Your task to perform on an android device: Open settings on Google Maps Image 0: 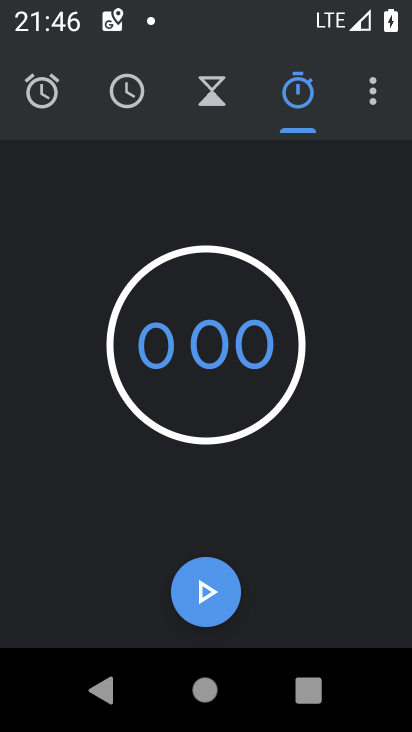
Step 0: press home button
Your task to perform on an android device: Open settings on Google Maps Image 1: 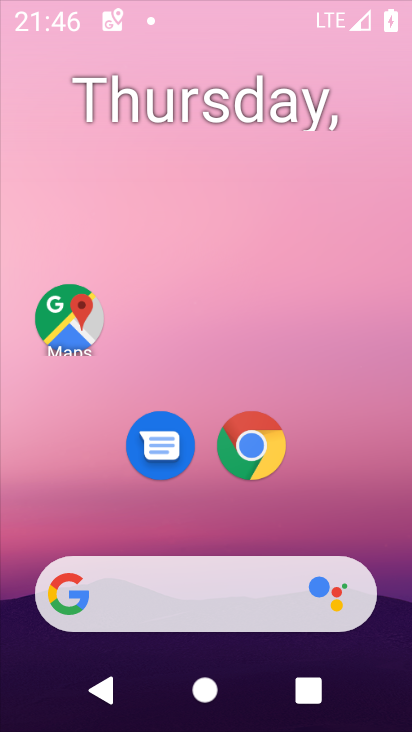
Step 1: drag from (191, 570) to (191, 67)
Your task to perform on an android device: Open settings on Google Maps Image 2: 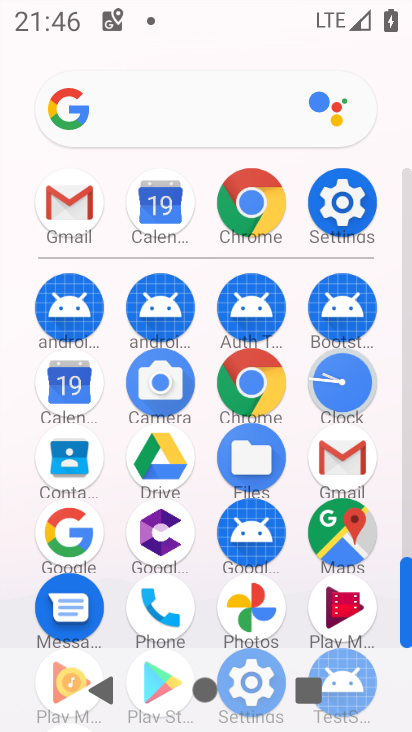
Step 2: click (337, 537)
Your task to perform on an android device: Open settings on Google Maps Image 3: 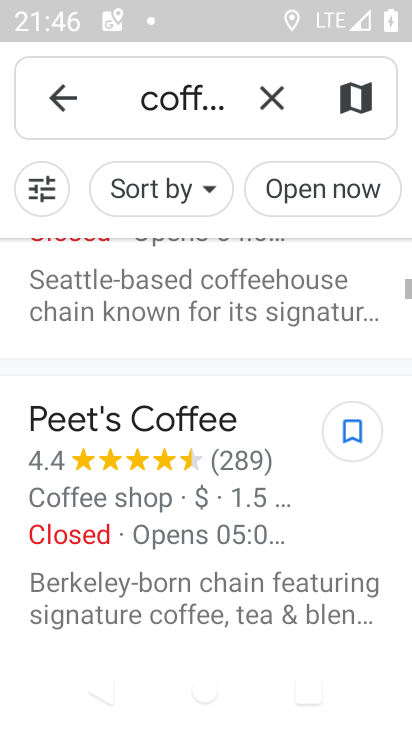
Step 3: click (67, 93)
Your task to perform on an android device: Open settings on Google Maps Image 4: 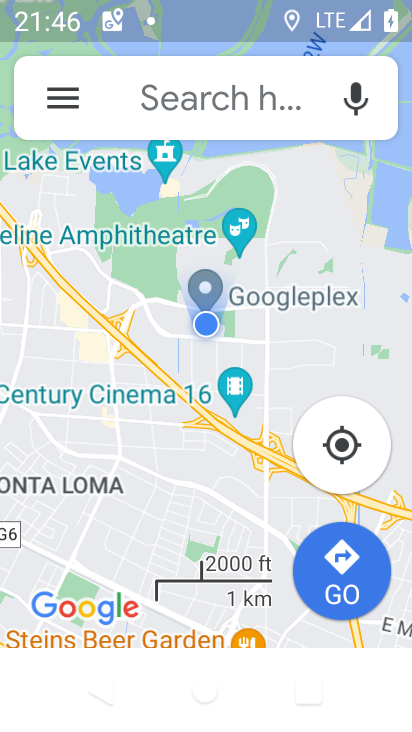
Step 4: click (63, 104)
Your task to perform on an android device: Open settings on Google Maps Image 5: 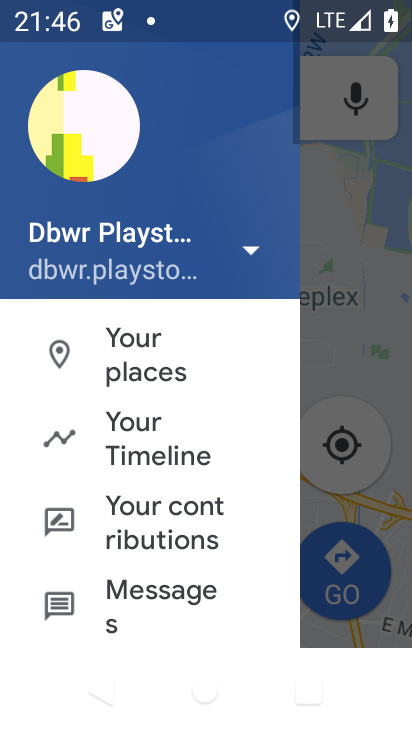
Step 5: drag from (140, 607) to (233, 126)
Your task to perform on an android device: Open settings on Google Maps Image 6: 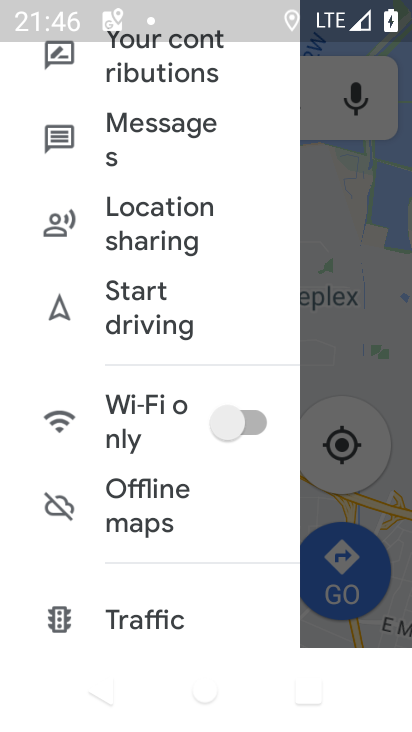
Step 6: drag from (153, 549) to (172, 80)
Your task to perform on an android device: Open settings on Google Maps Image 7: 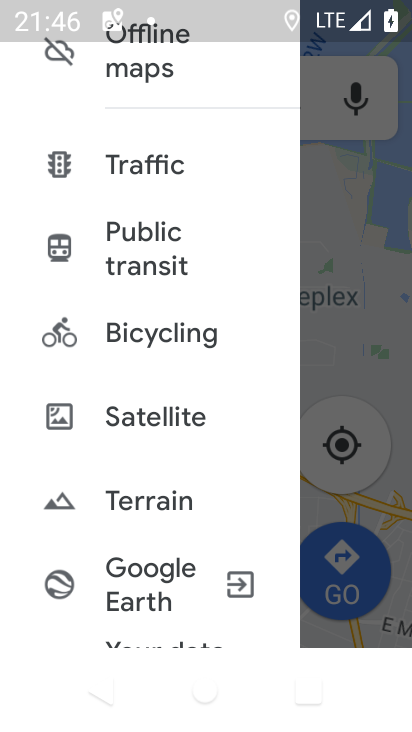
Step 7: drag from (138, 584) to (208, 34)
Your task to perform on an android device: Open settings on Google Maps Image 8: 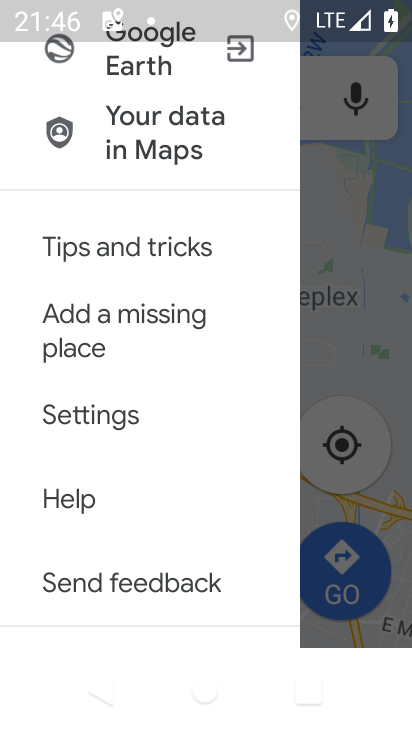
Step 8: click (79, 421)
Your task to perform on an android device: Open settings on Google Maps Image 9: 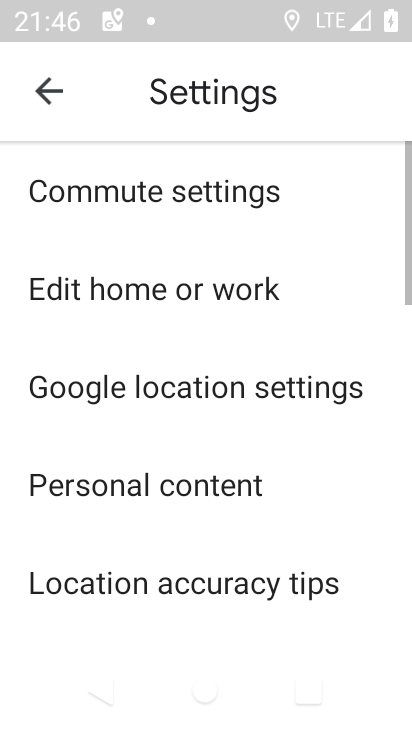
Step 9: task complete